Your task to perform on an android device: find photos in the google photos app Image 0: 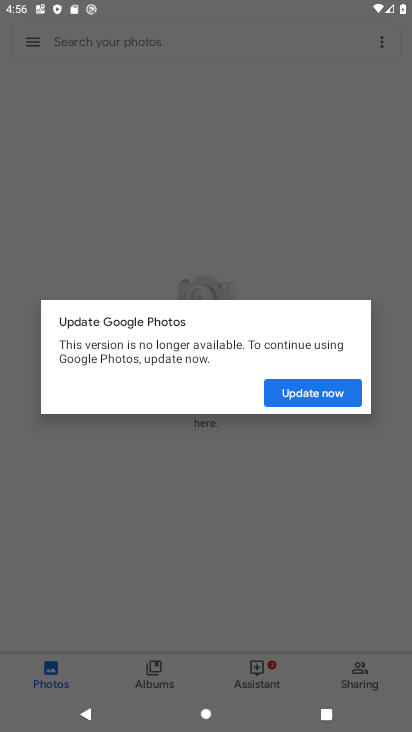
Step 0: click (283, 394)
Your task to perform on an android device: find photos in the google photos app Image 1: 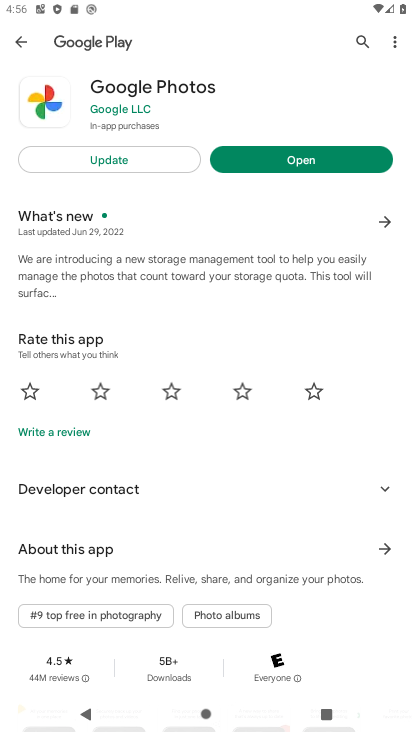
Step 1: click (294, 151)
Your task to perform on an android device: find photos in the google photos app Image 2: 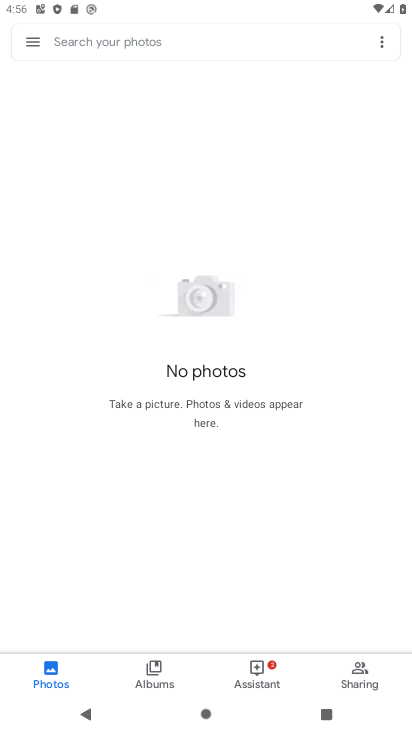
Step 2: task complete